Your task to perform on an android device: change the clock display to show seconds Image 0: 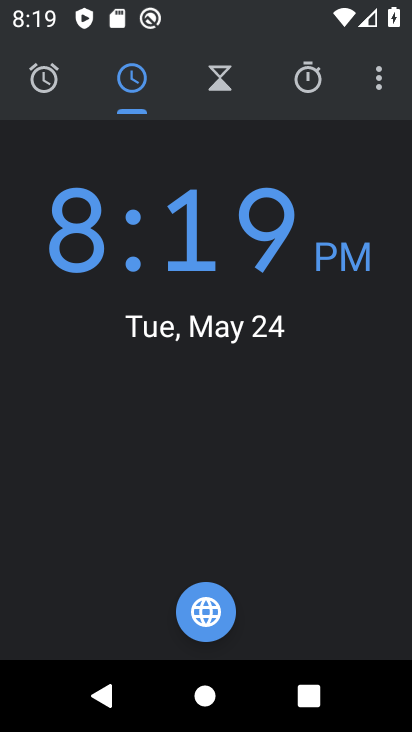
Step 0: click (380, 82)
Your task to perform on an android device: change the clock display to show seconds Image 1: 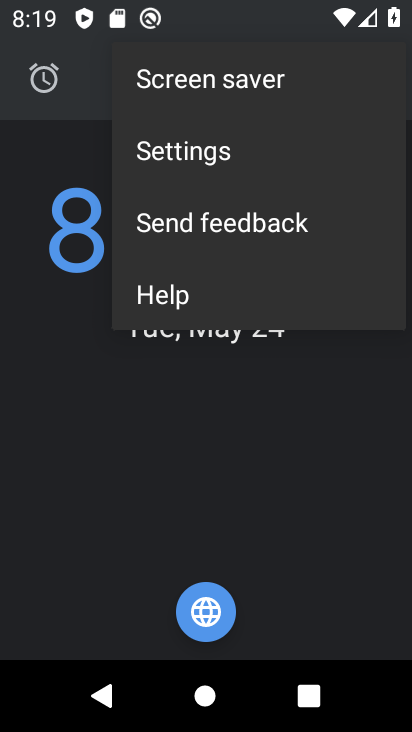
Step 1: click (226, 152)
Your task to perform on an android device: change the clock display to show seconds Image 2: 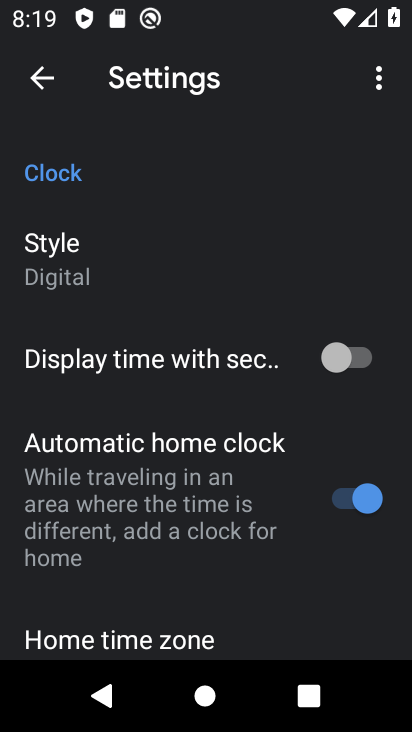
Step 2: click (366, 356)
Your task to perform on an android device: change the clock display to show seconds Image 3: 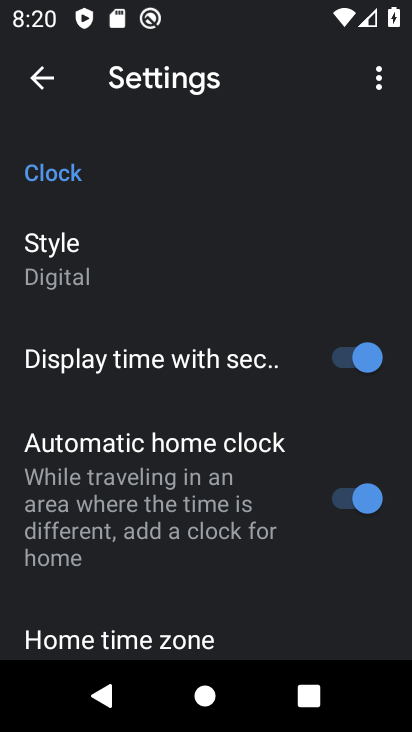
Step 3: task complete